Your task to perform on an android device: open device folders in google photos Image 0: 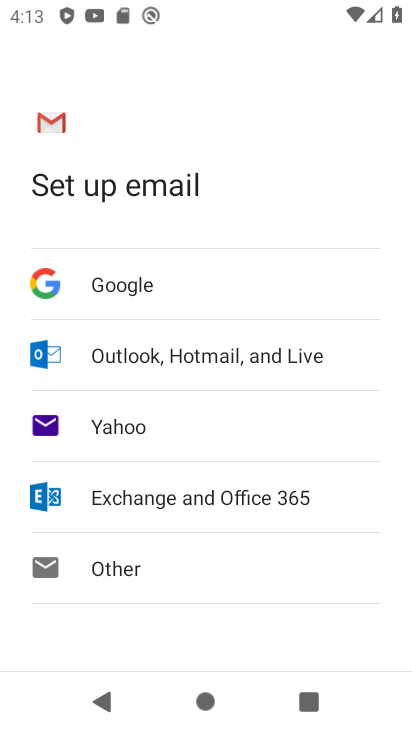
Step 0: press home button
Your task to perform on an android device: open device folders in google photos Image 1: 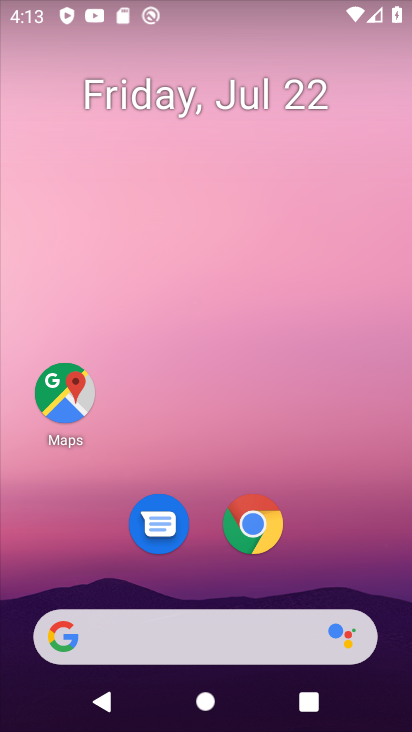
Step 1: drag from (336, 545) to (327, 69)
Your task to perform on an android device: open device folders in google photos Image 2: 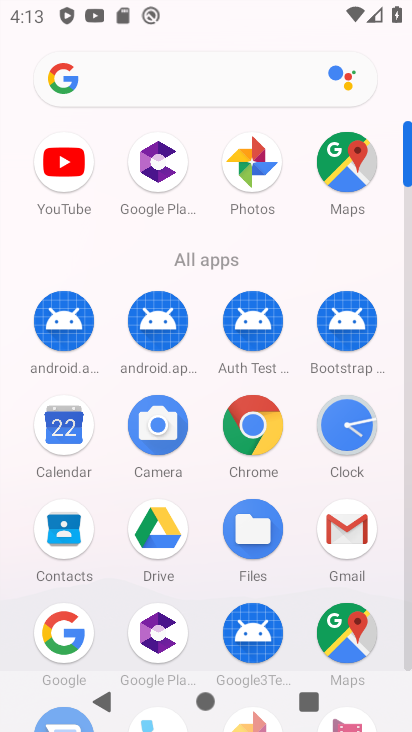
Step 2: click (254, 150)
Your task to perform on an android device: open device folders in google photos Image 3: 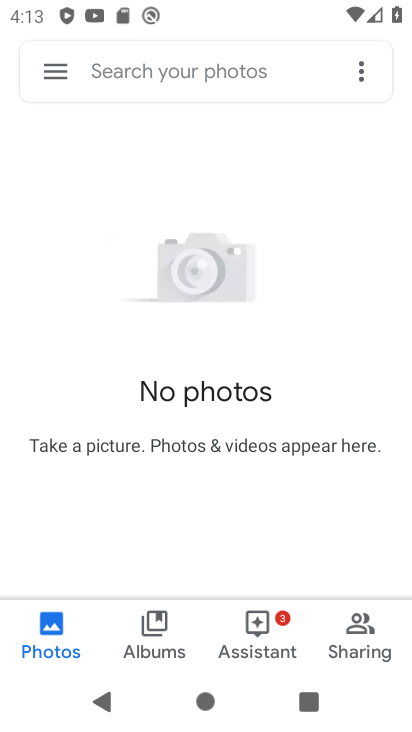
Step 3: click (58, 68)
Your task to perform on an android device: open device folders in google photos Image 4: 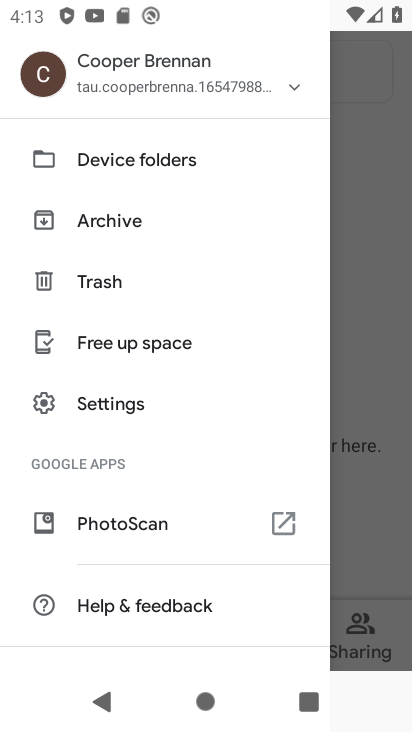
Step 4: click (125, 164)
Your task to perform on an android device: open device folders in google photos Image 5: 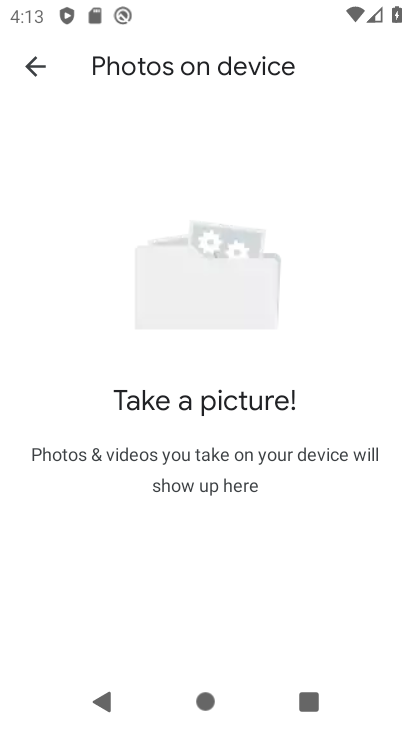
Step 5: task complete